Your task to perform on an android device: move an email to a new category in the gmail app Image 0: 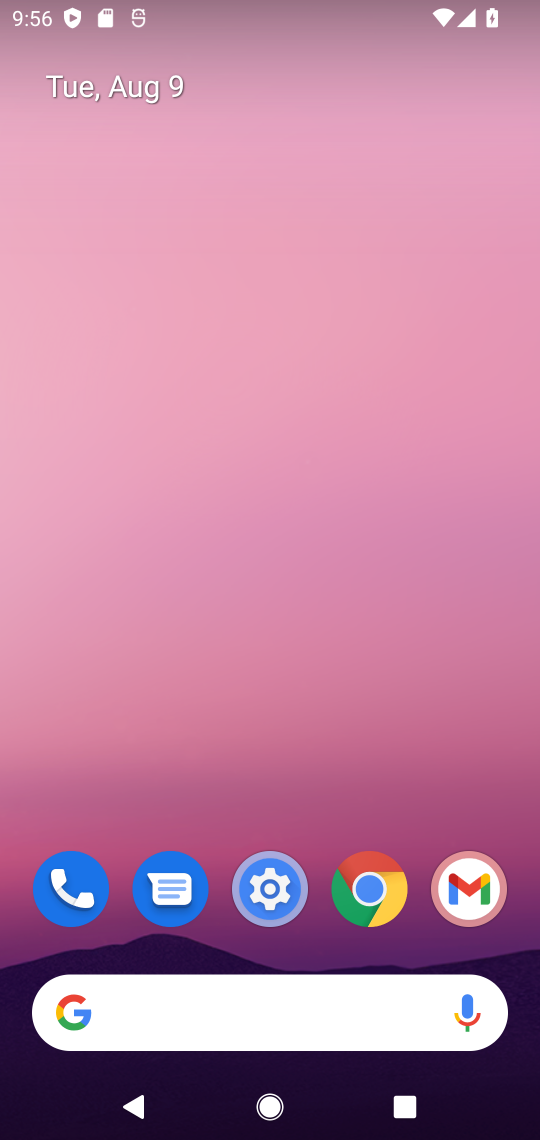
Step 0: click (487, 879)
Your task to perform on an android device: move an email to a new category in the gmail app Image 1: 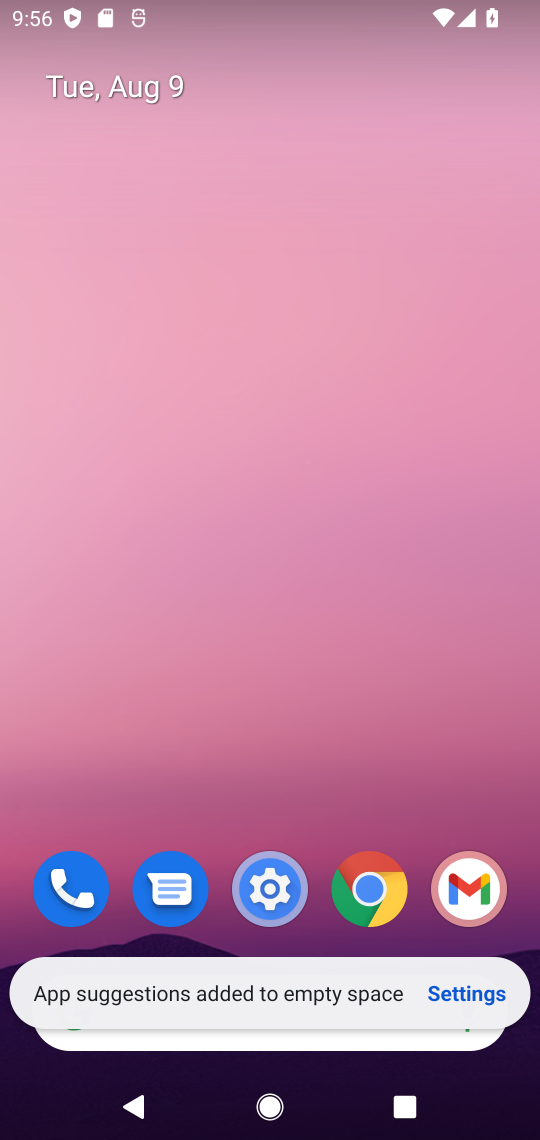
Step 1: click (485, 877)
Your task to perform on an android device: move an email to a new category in the gmail app Image 2: 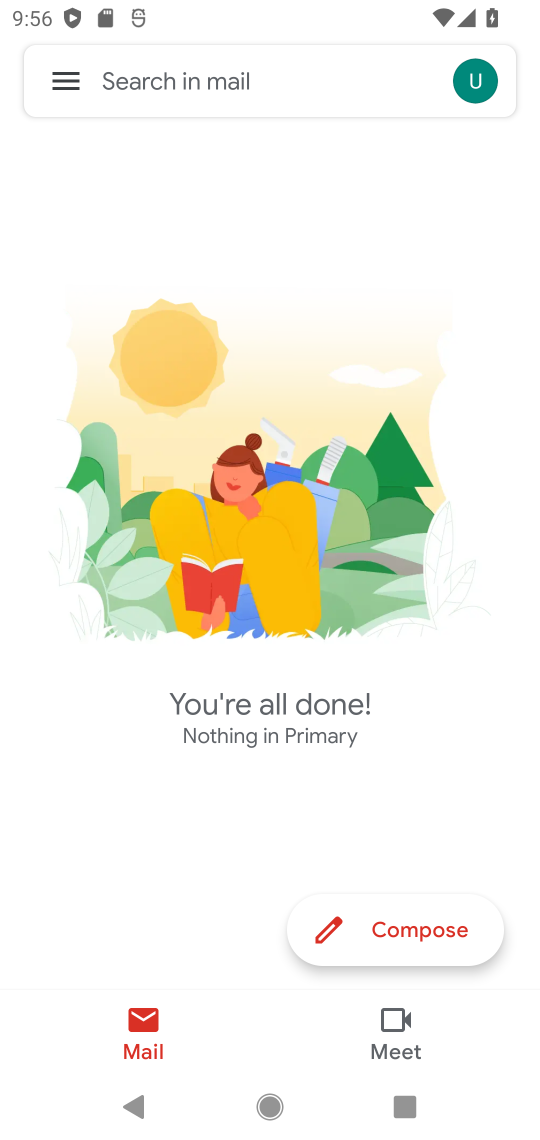
Step 2: click (67, 69)
Your task to perform on an android device: move an email to a new category in the gmail app Image 3: 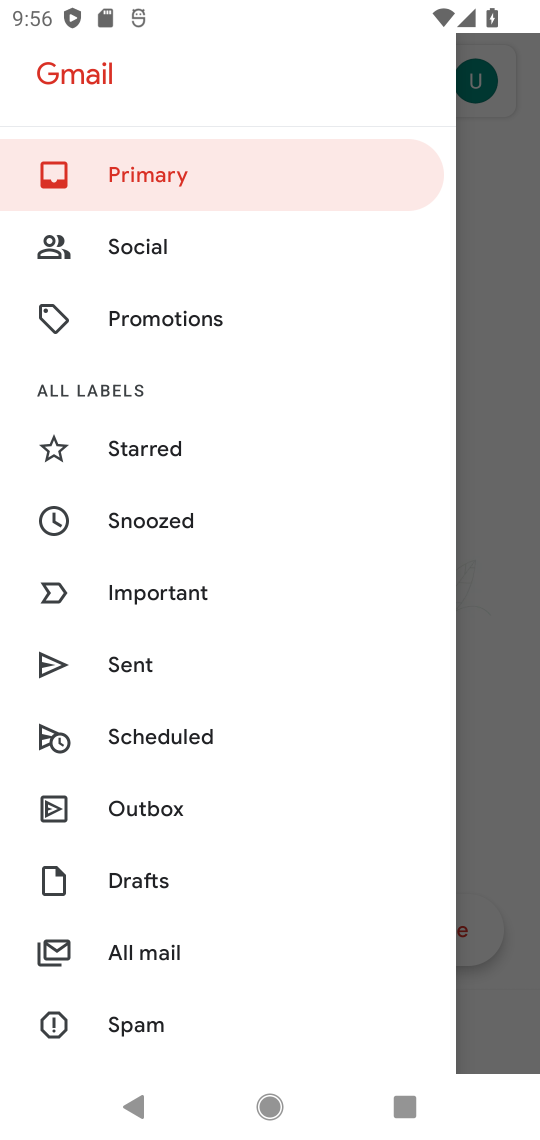
Step 3: click (182, 955)
Your task to perform on an android device: move an email to a new category in the gmail app Image 4: 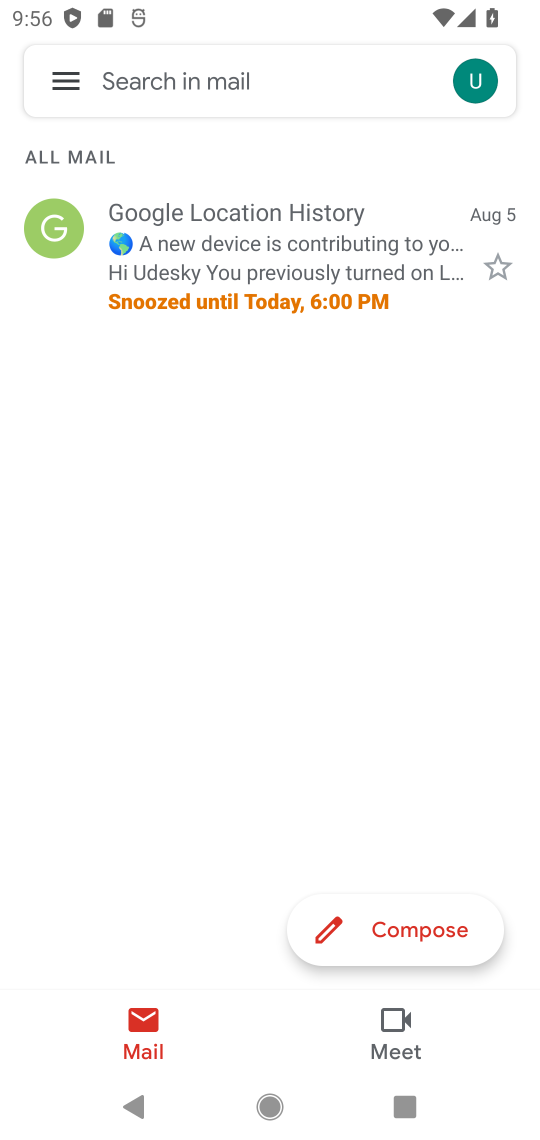
Step 4: click (269, 267)
Your task to perform on an android device: move an email to a new category in the gmail app Image 5: 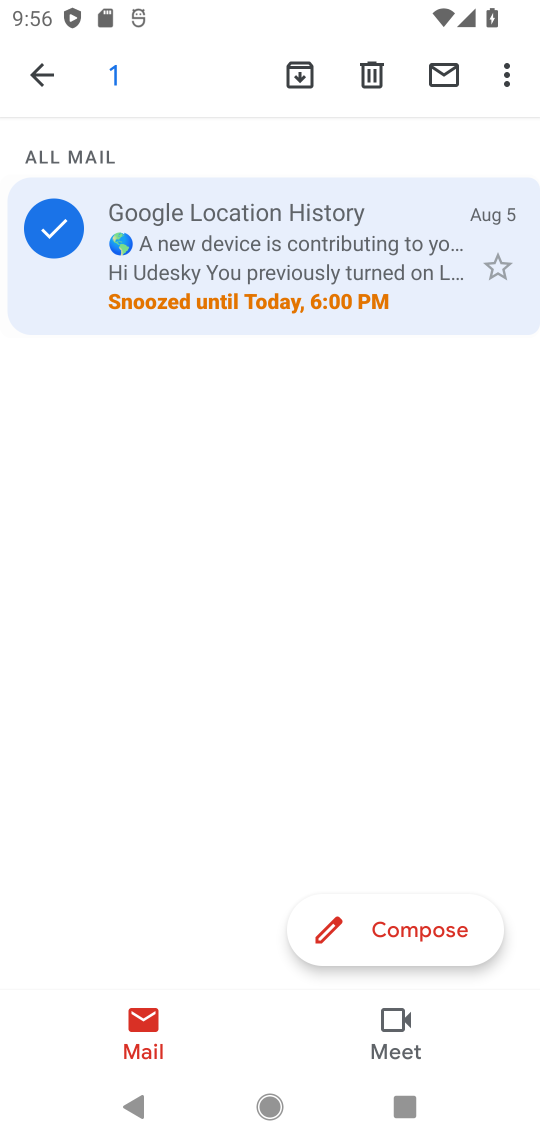
Step 5: click (515, 64)
Your task to perform on an android device: move an email to a new category in the gmail app Image 6: 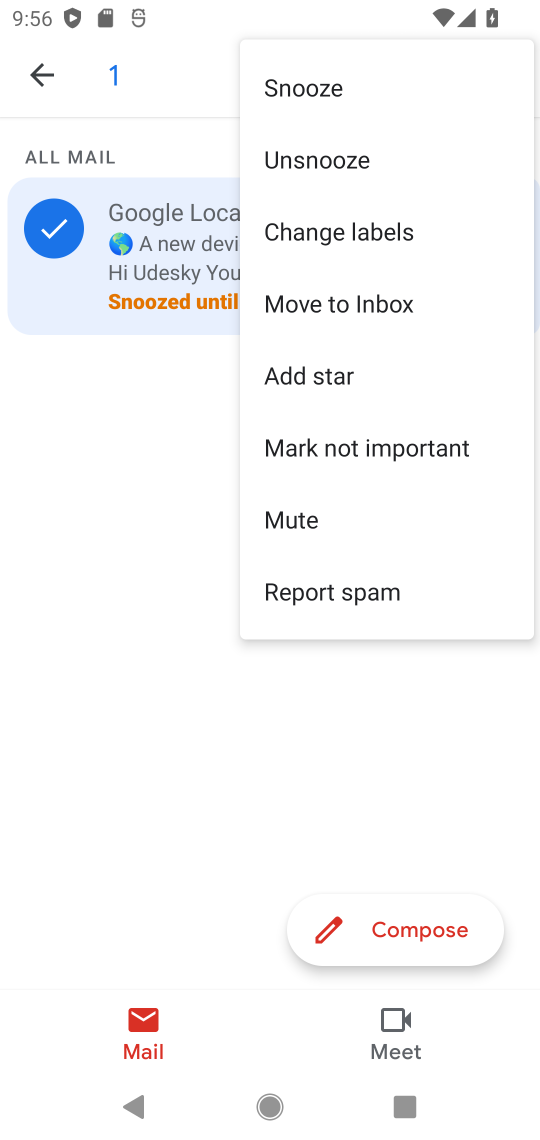
Step 6: click (364, 303)
Your task to perform on an android device: move an email to a new category in the gmail app Image 7: 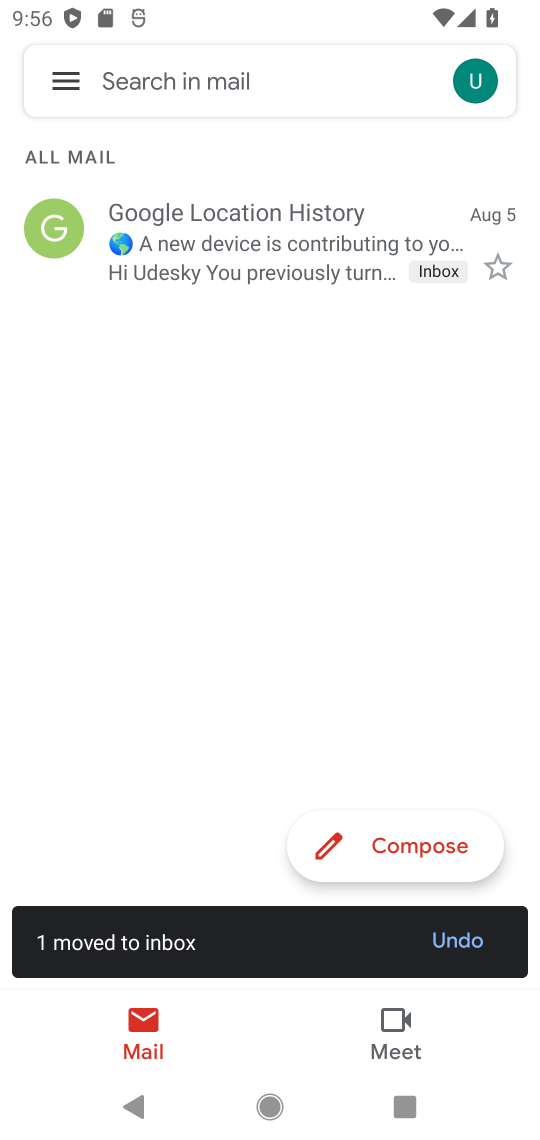
Step 7: task complete